Your task to perform on an android device: Go to Amazon Image 0: 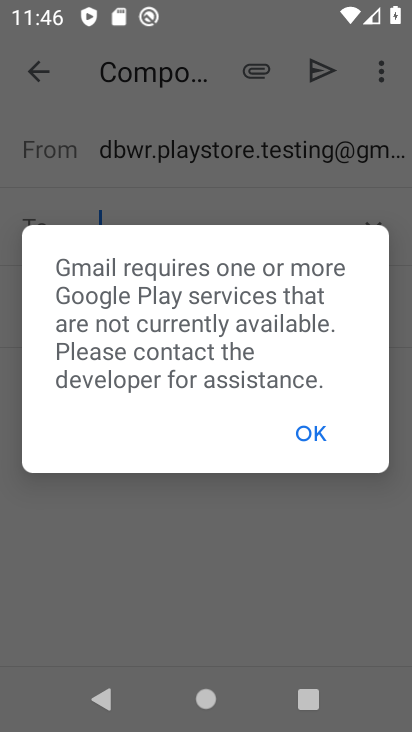
Step 0: press home button
Your task to perform on an android device: Go to Amazon Image 1: 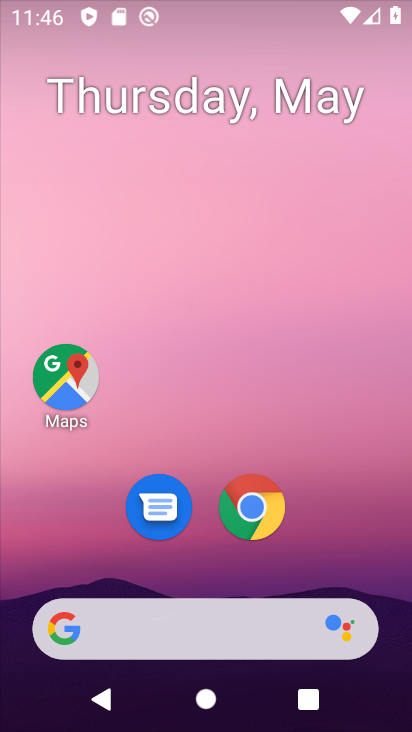
Step 1: drag from (218, 606) to (290, 69)
Your task to perform on an android device: Go to Amazon Image 2: 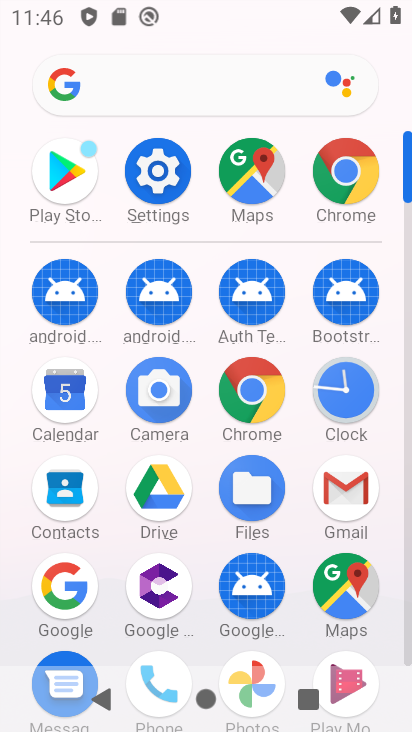
Step 2: click (357, 190)
Your task to perform on an android device: Go to Amazon Image 3: 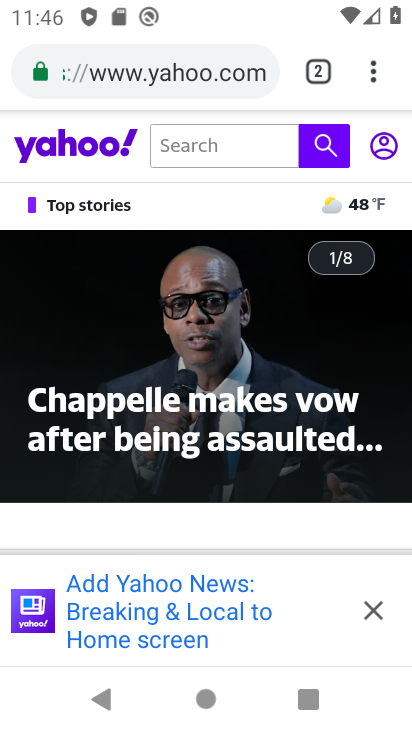
Step 3: drag from (317, 68) to (281, 237)
Your task to perform on an android device: Go to Amazon Image 4: 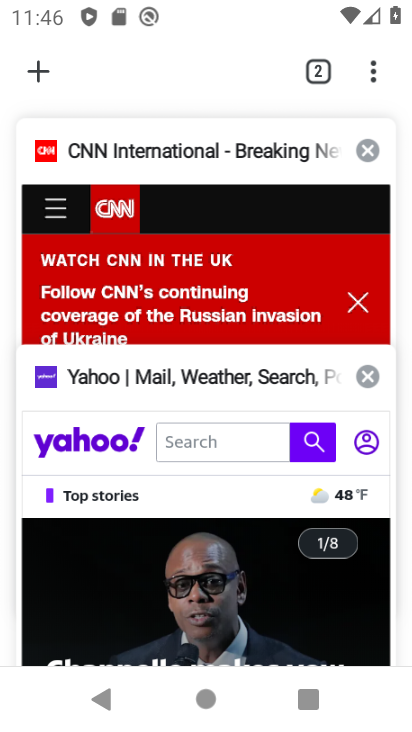
Step 4: click (39, 68)
Your task to perform on an android device: Go to Amazon Image 5: 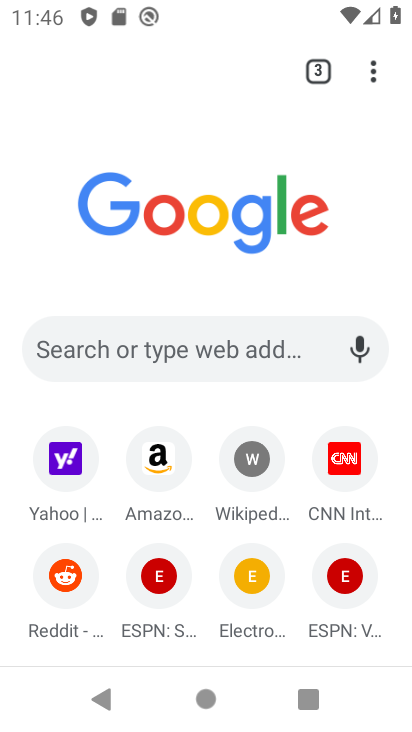
Step 5: click (164, 477)
Your task to perform on an android device: Go to Amazon Image 6: 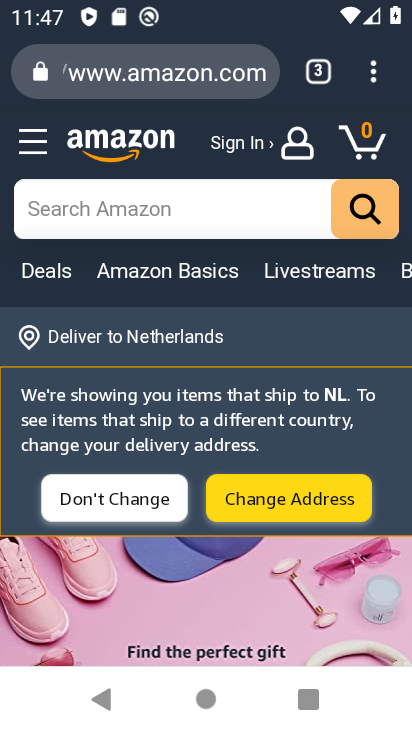
Step 6: task complete